Your task to perform on an android device: Open accessibility settings Image 0: 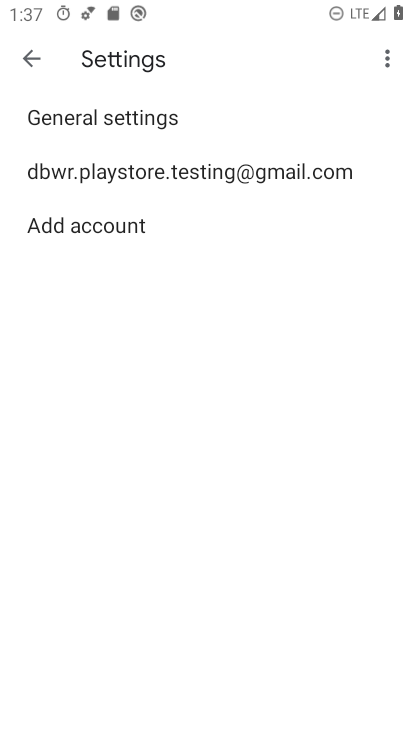
Step 0: press home button
Your task to perform on an android device: Open accessibility settings Image 1: 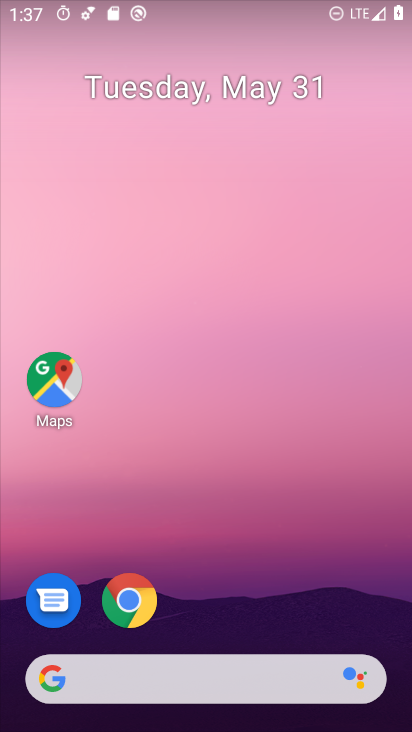
Step 1: drag from (208, 709) to (208, 38)
Your task to perform on an android device: Open accessibility settings Image 2: 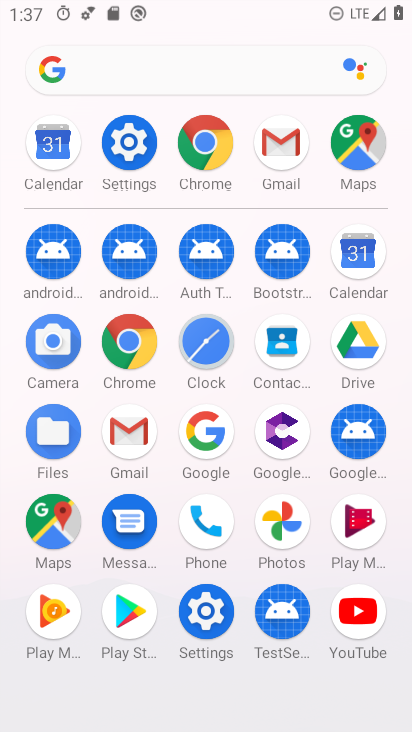
Step 2: click (130, 137)
Your task to perform on an android device: Open accessibility settings Image 3: 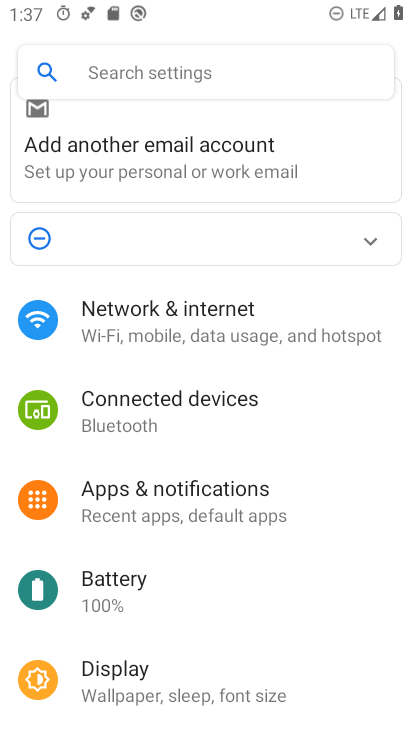
Step 3: drag from (160, 660) to (162, 376)
Your task to perform on an android device: Open accessibility settings Image 4: 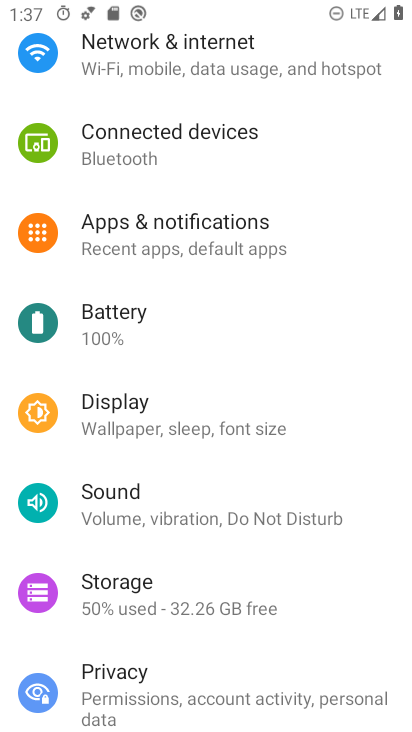
Step 4: drag from (186, 677) to (181, 499)
Your task to perform on an android device: Open accessibility settings Image 5: 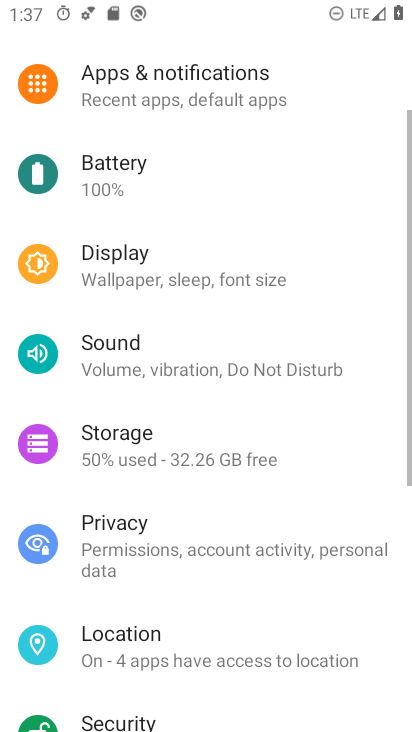
Step 5: drag from (187, 378) to (188, 292)
Your task to perform on an android device: Open accessibility settings Image 6: 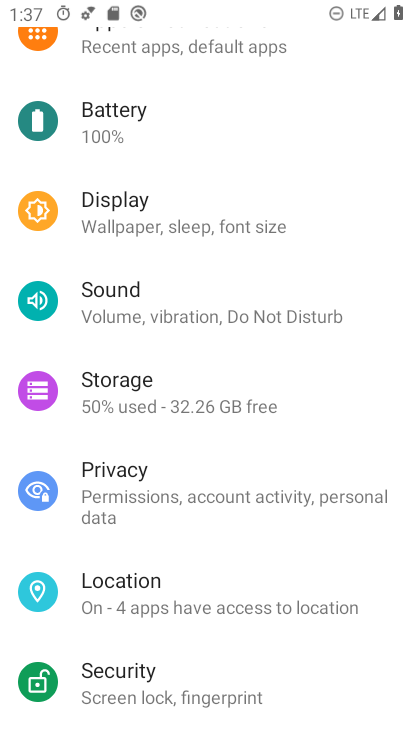
Step 6: drag from (139, 690) to (138, 579)
Your task to perform on an android device: Open accessibility settings Image 7: 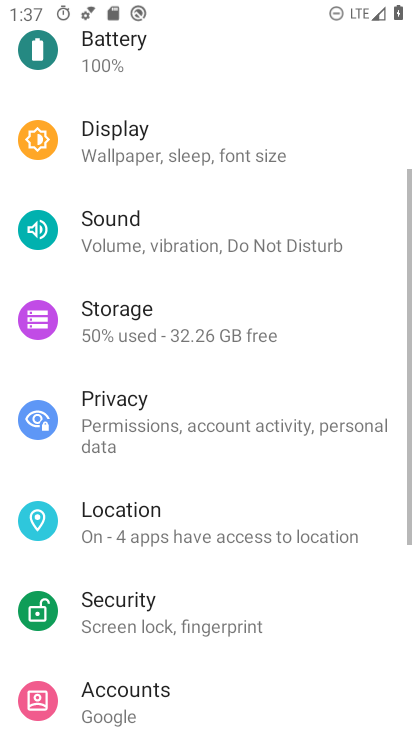
Step 7: drag from (138, 327) to (138, 259)
Your task to perform on an android device: Open accessibility settings Image 8: 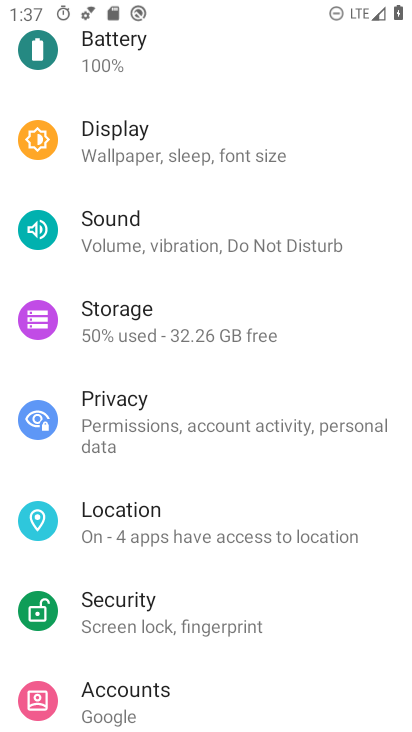
Step 8: drag from (122, 663) to (129, 288)
Your task to perform on an android device: Open accessibility settings Image 9: 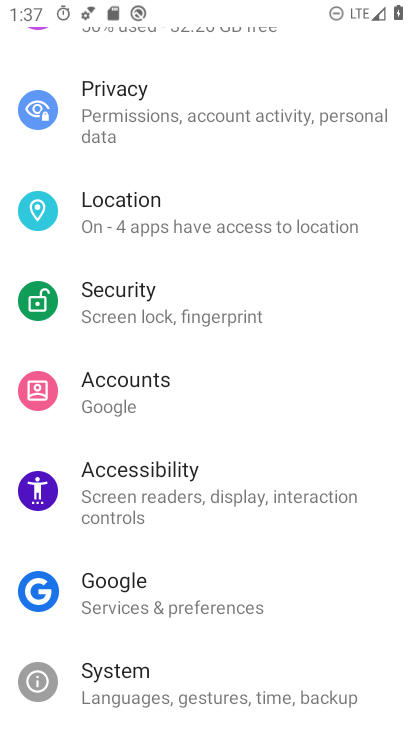
Step 9: click (149, 457)
Your task to perform on an android device: Open accessibility settings Image 10: 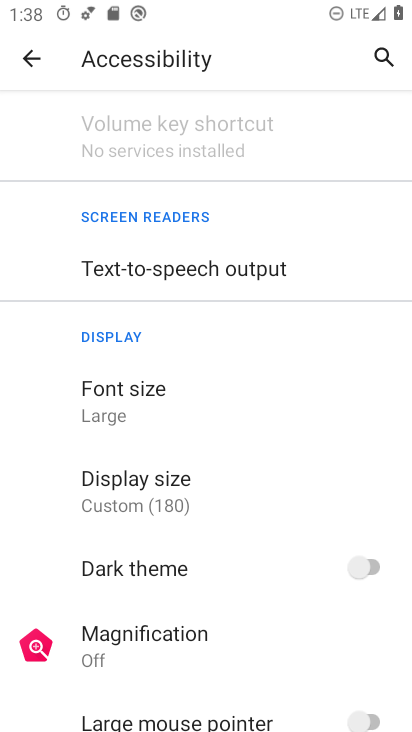
Step 10: task complete